Your task to perform on an android device: Empty the shopping cart on costco.com. Add rayovac triple a to the cart on costco.com Image 0: 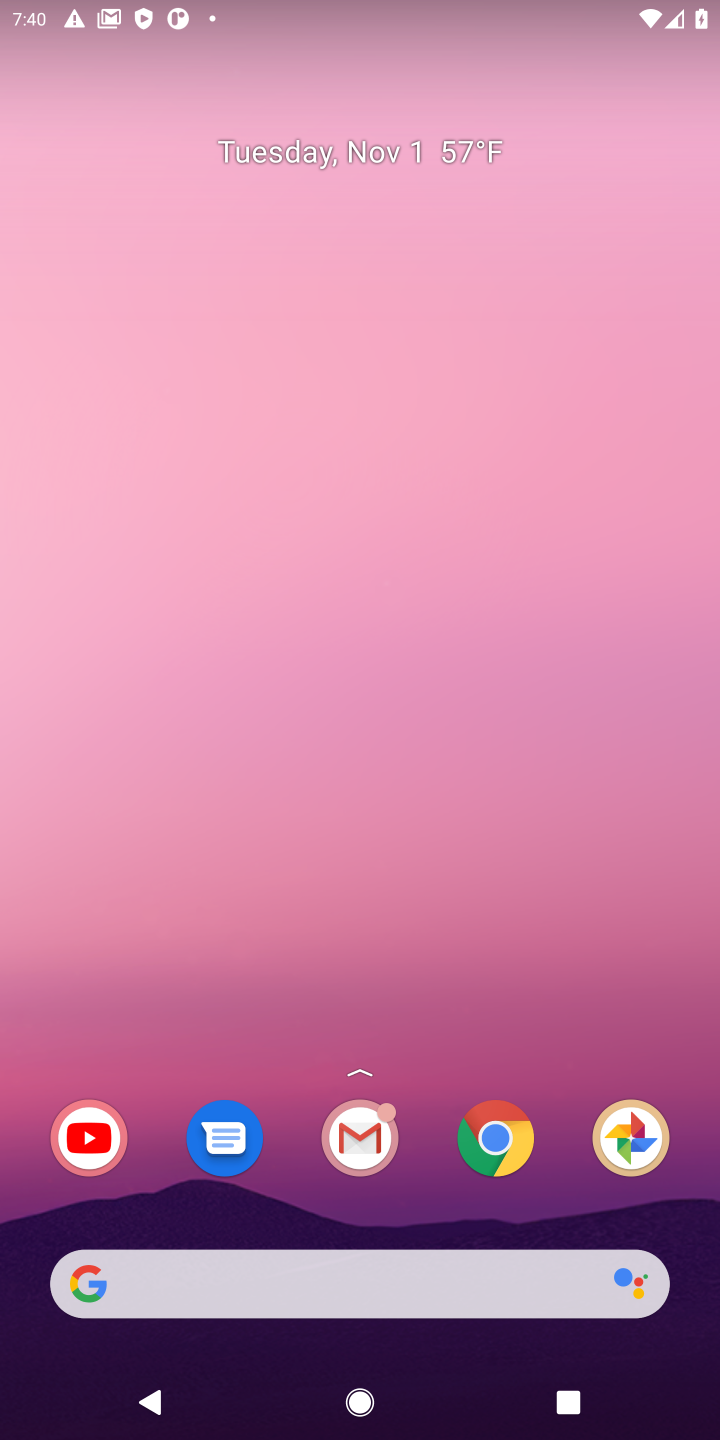
Step 0: click (512, 1159)
Your task to perform on an android device: Empty the shopping cart on costco.com. Add rayovac triple a to the cart on costco.com Image 1: 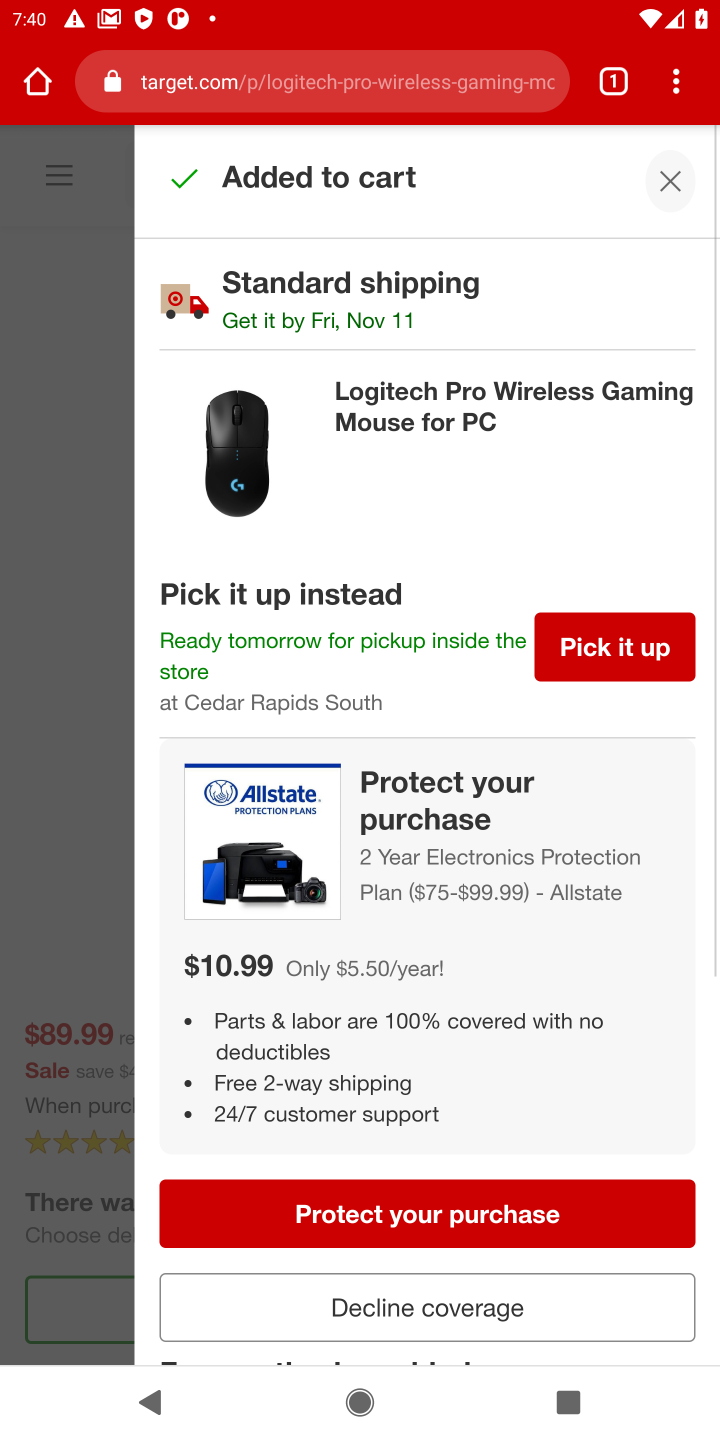
Step 1: click (278, 98)
Your task to perform on an android device: Empty the shopping cart on costco.com. Add rayovac triple a to the cart on costco.com Image 2: 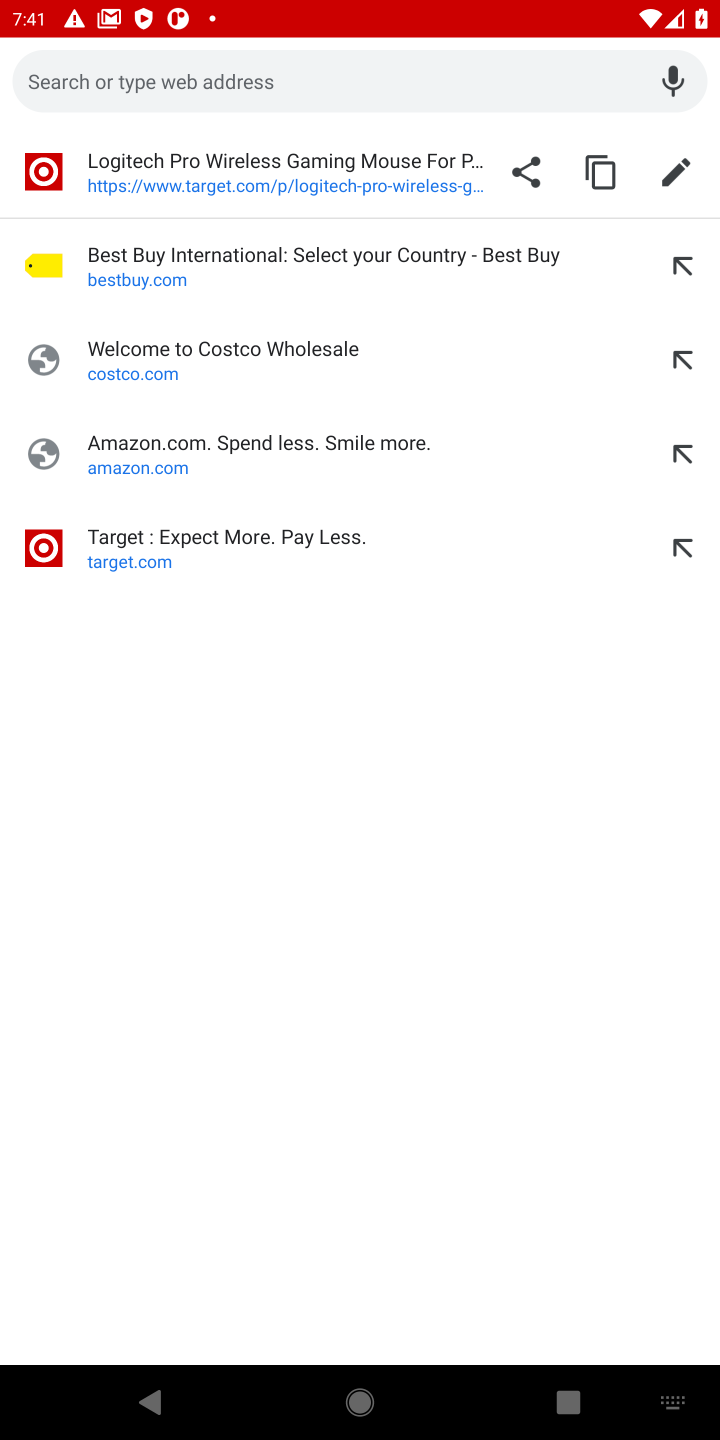
Step 2: type "costco.com"
Your task to perform on an android device: Empty the shopping cart on costco.com. Add rayovac triple a to the cart on costco.com Image 3: 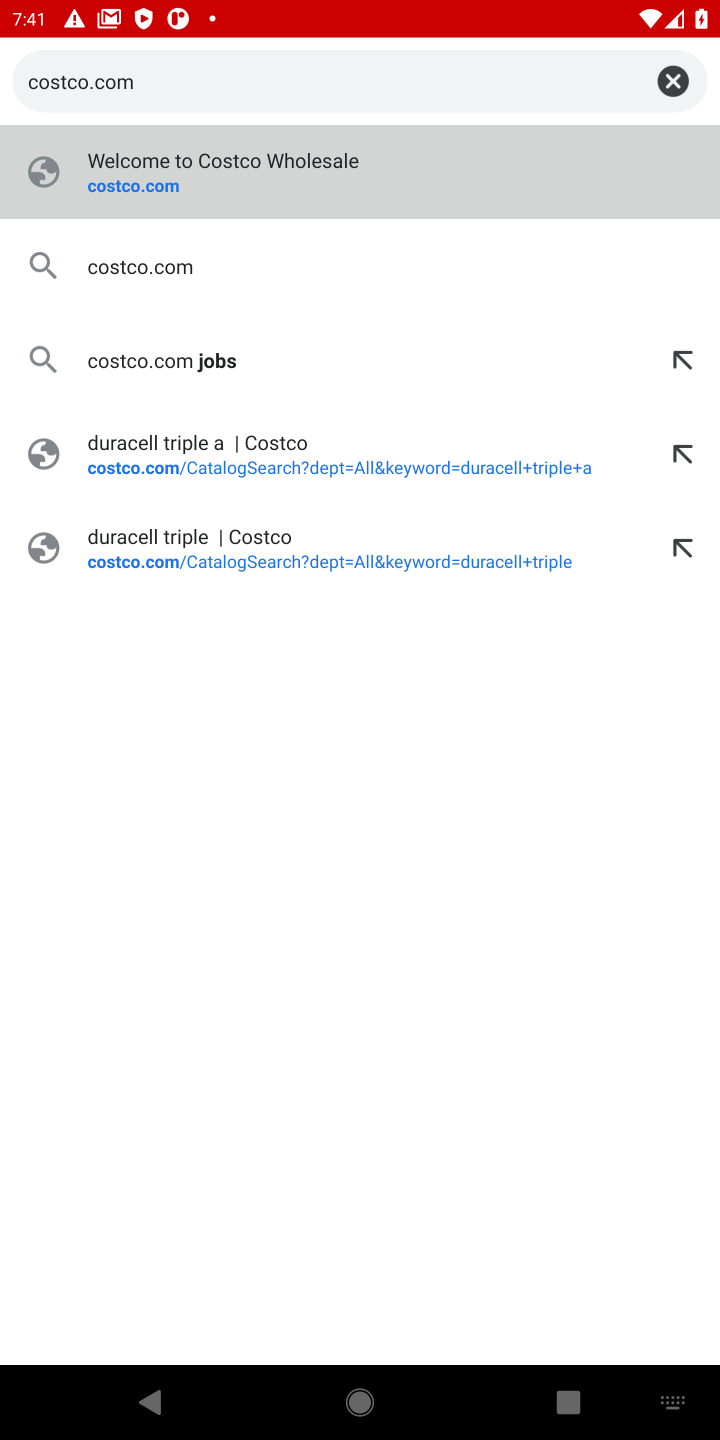
Step 3: click (115, 192)
Your task to perform on an android device: Empty the shopping cart on costco.com. Add rayovac triple a to the cart on costco.com Image 4: 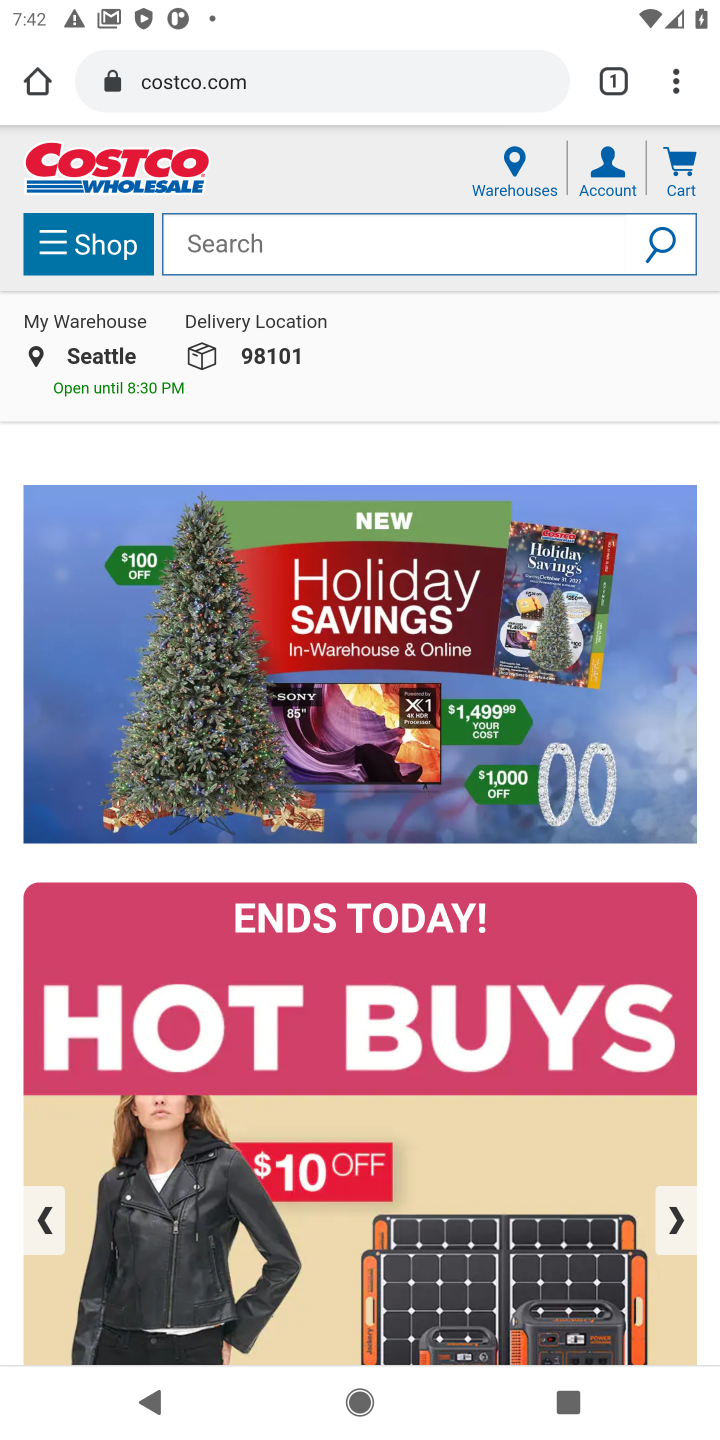
Step 4: click (230, 243)
Your task to perform on an android device: Empty the shopping cart on costco.com. Add rayovac triple a to the cart on costco.com Image 5: 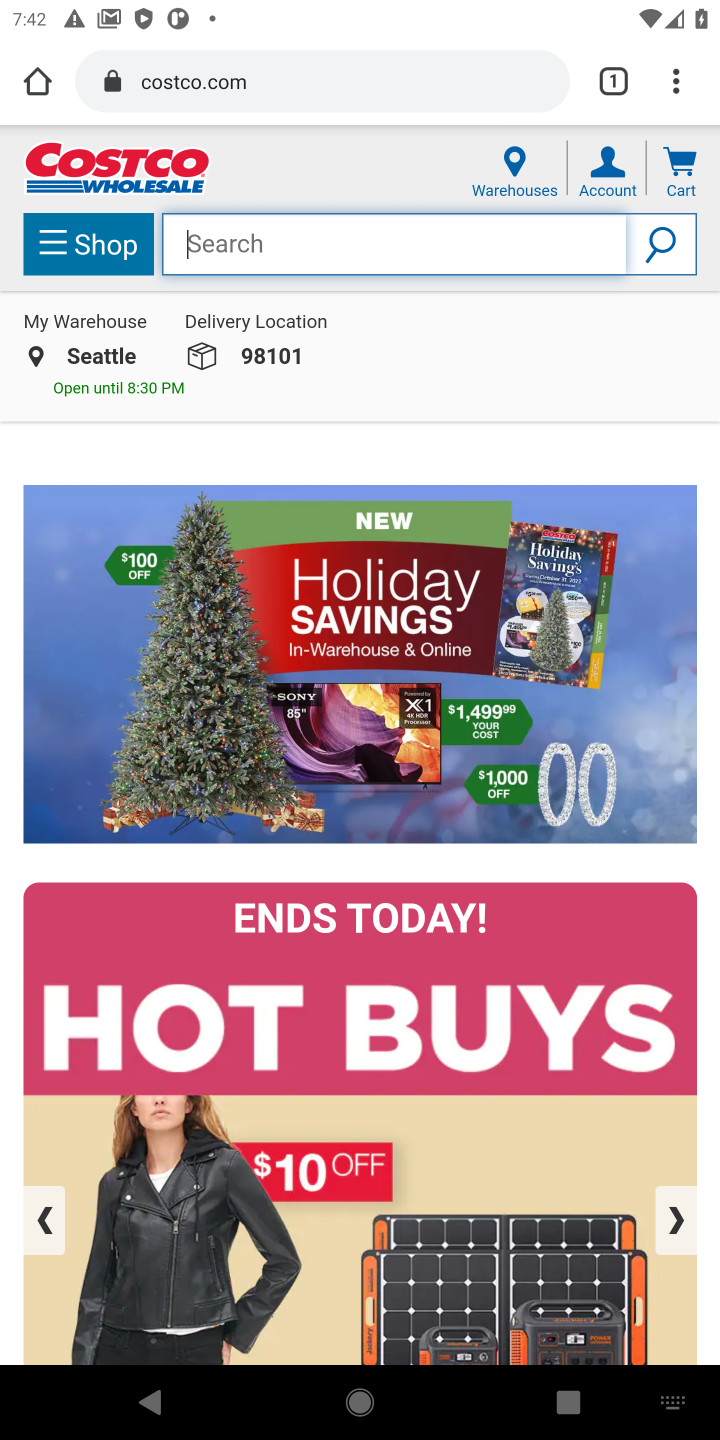
Step 5: click (225, 236)
Your task to perform on an android device: Empty the shopping cart on costco.com. Add rayovac triple a to the cart on costco.com Image 6: 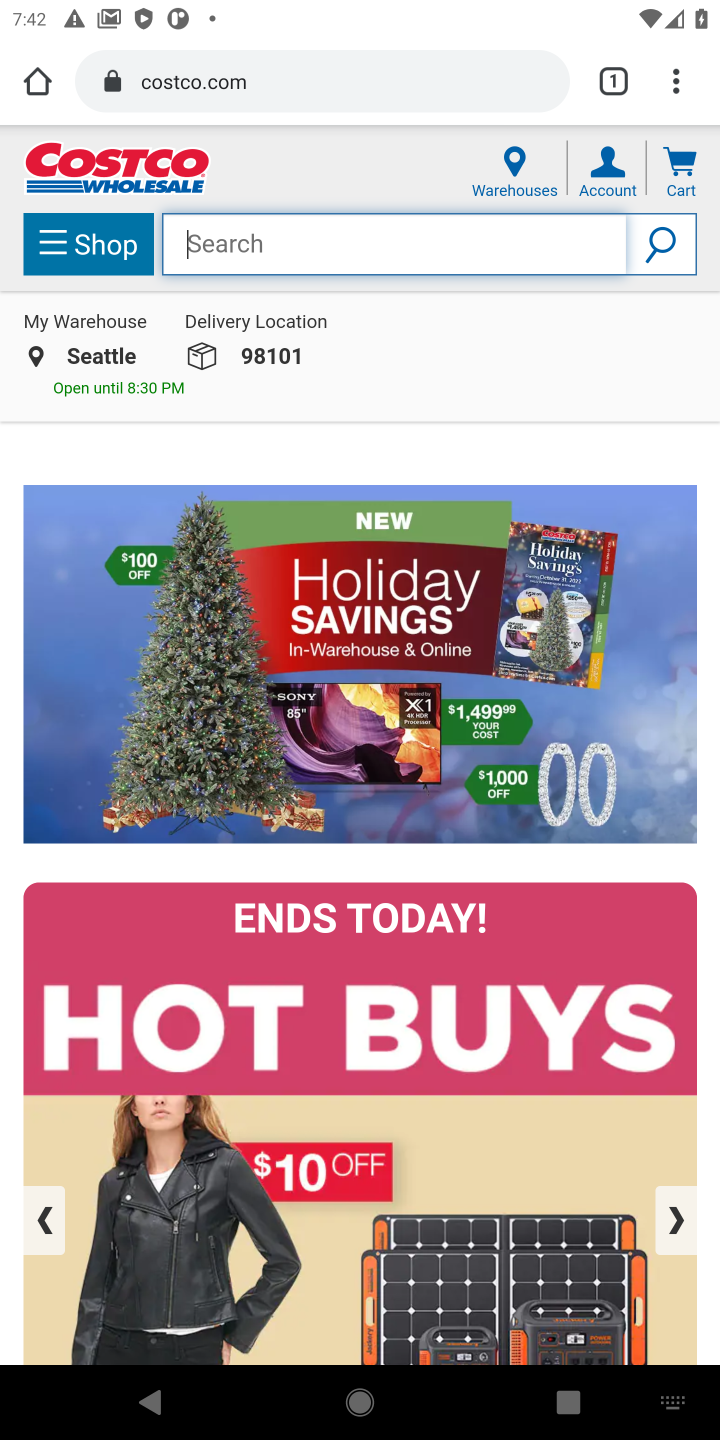
Step 6: type "rayovac triple a"
Your task to perform on an android device: Empty the shopping cart on costco.com. Add rayovac triple a to the cart on costco.com Image 7: 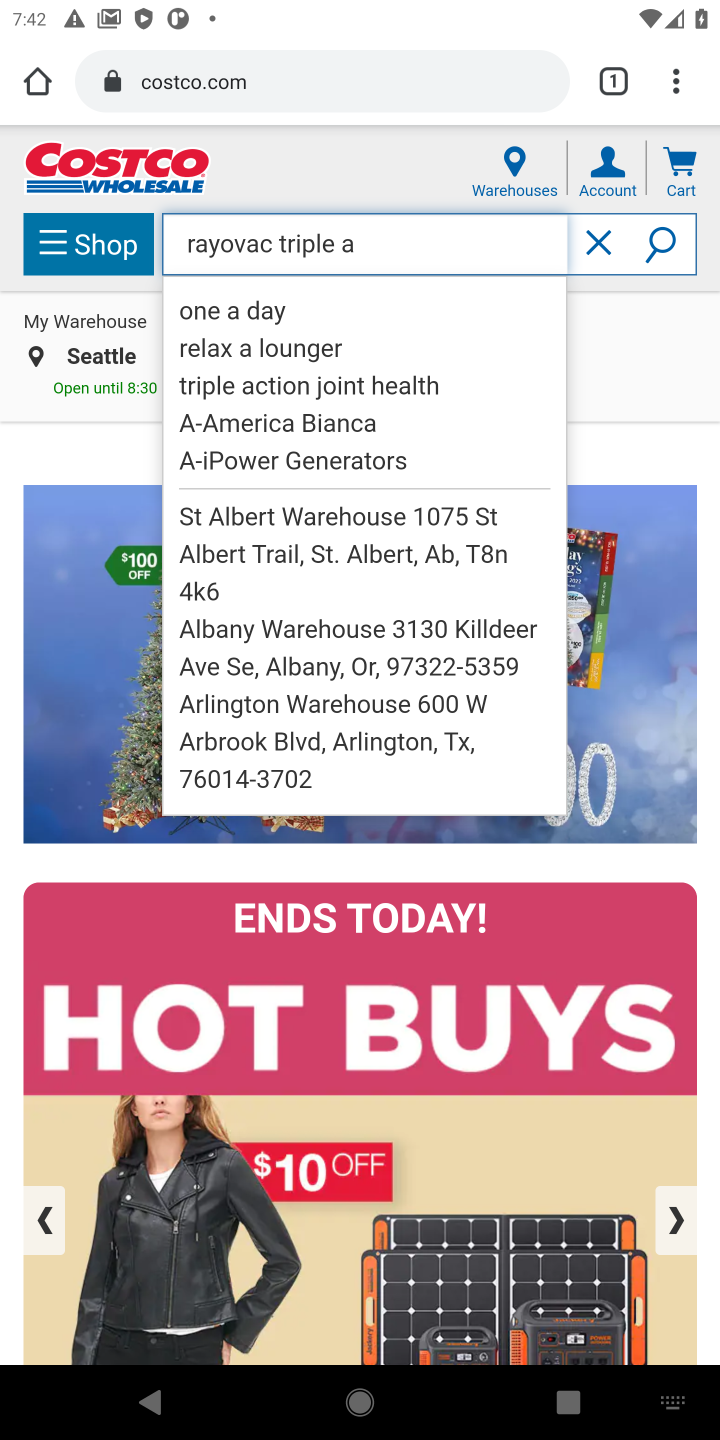
Step 7: click (650, 249)
Your task to perform on an android device: Empty the shopping cart on costco.com. Add rayovac triple a to the cart on costco.com Image 8: 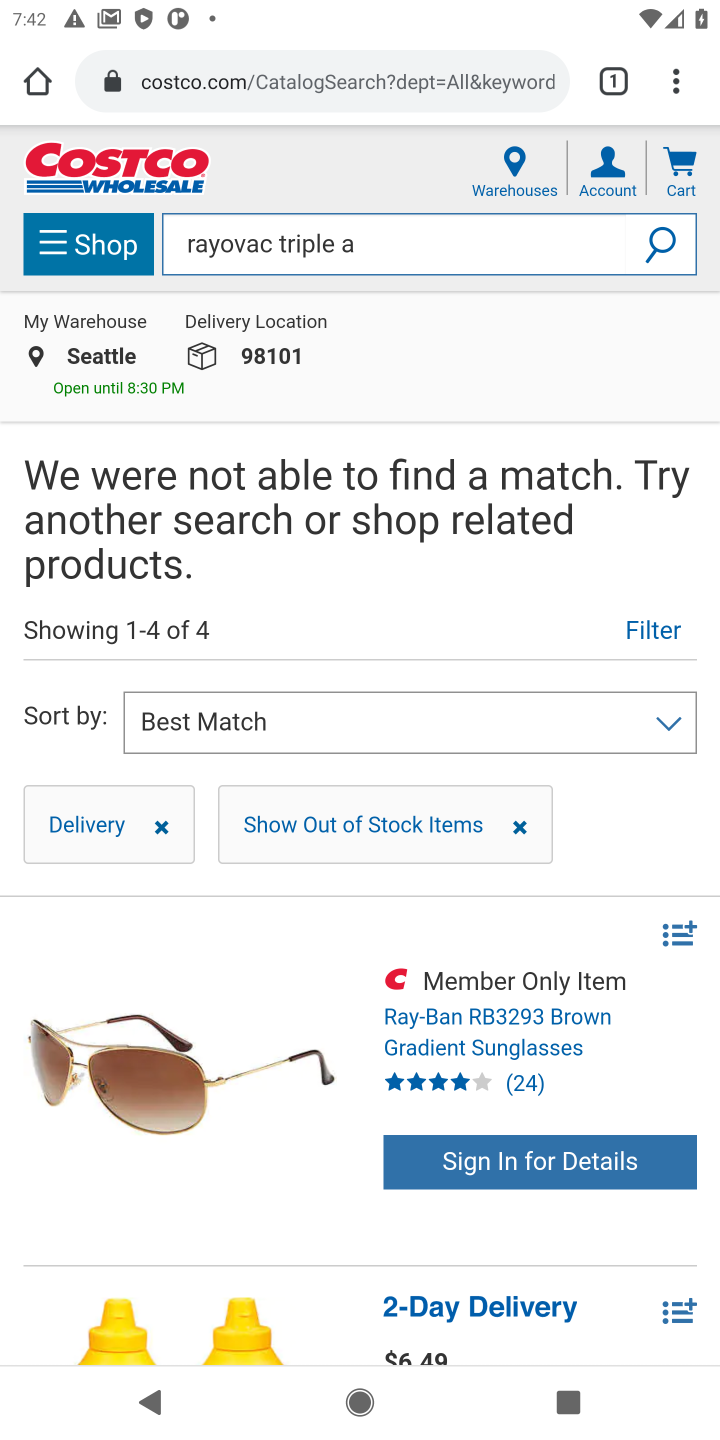
Step 8: task complete